Your task to perform on an android device: Go to accessibility settings Image 0: 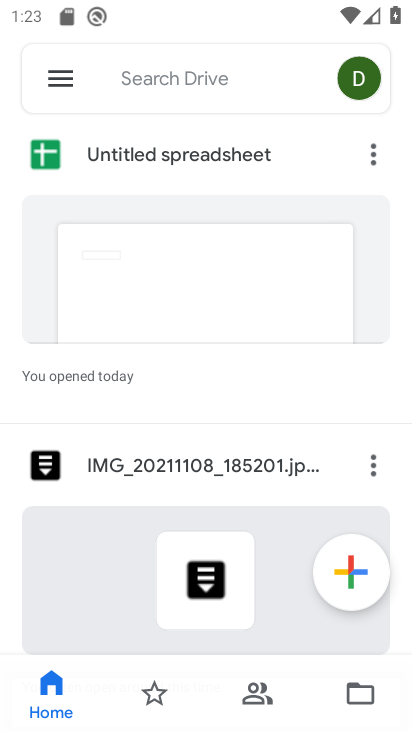
Step 0: press home button
Your task to perform on an android device: Go to accessibility settings Image 1: 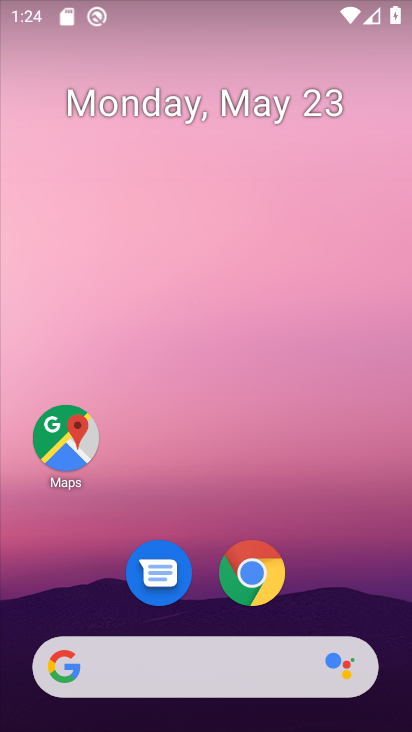
Step 1: drag from (345, 580) to (275, 0)
Your task to perform on an android device: Go to accessibility settings Image 2: 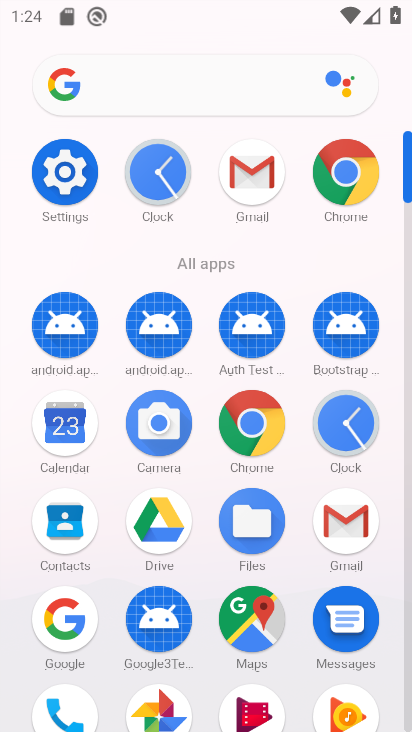
Step 2: click (60, 180)
Your task to perform on an android device: Go to accessibility settings Image 3: 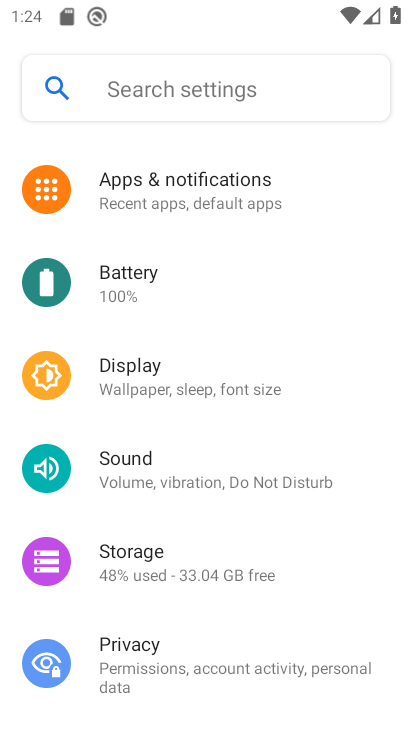
Step 3: drag from (256, 642) to (233, 192)
Your task to perform on an android device: Go to accessibility settings Image 4: 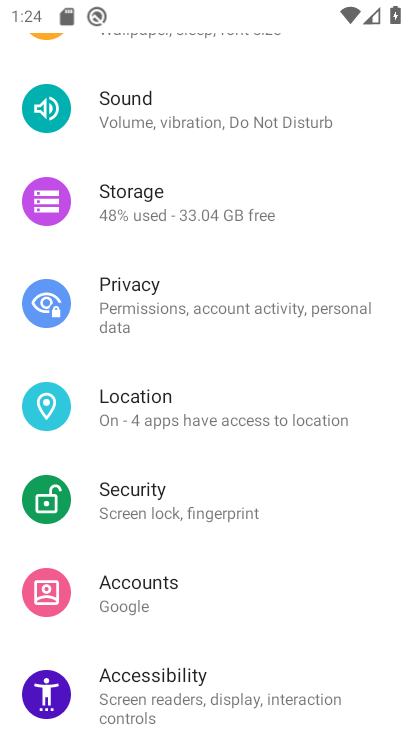
Step 4: click (181, 672)
Your task to perform on an android device: Go to accessibility settings Image 5: 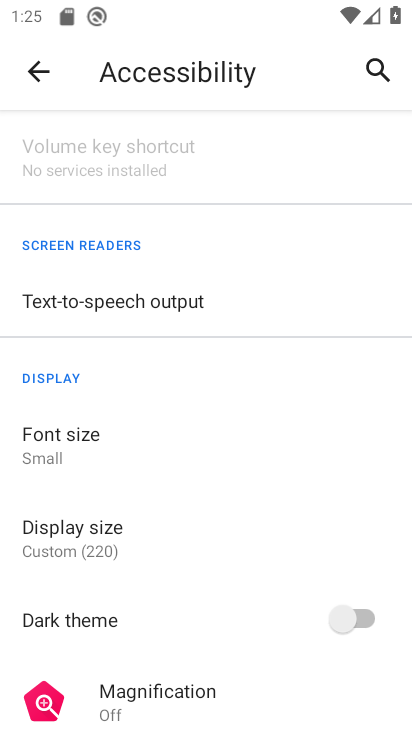
Step 5: task complete